Your task to perform on an android device: Turn off the flashlight Image 0: 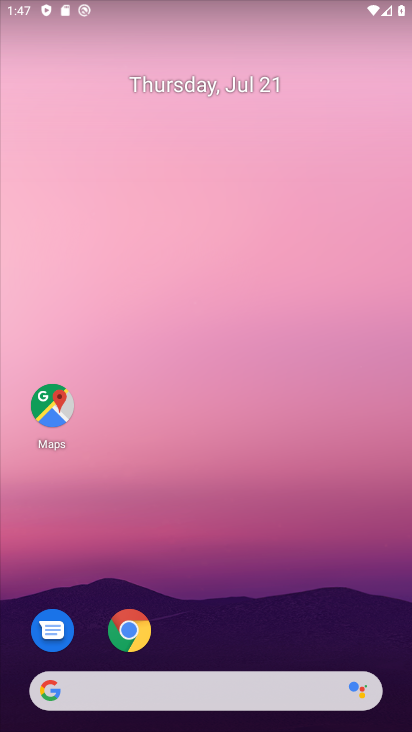
Step 0: press home button
Your task to perform on an android device: Turn off the flashlight Image 1: 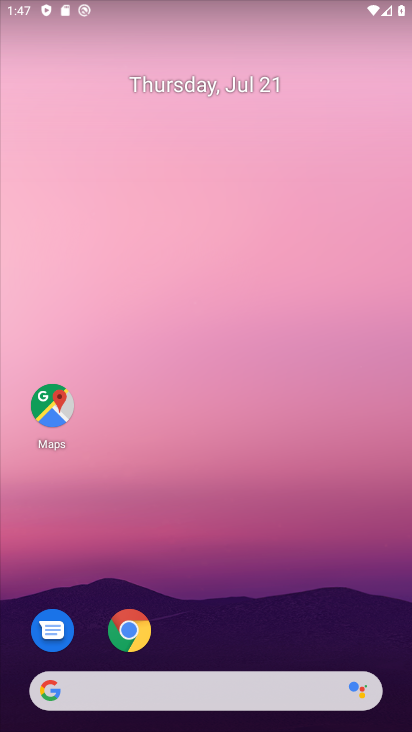
Step 1: drag from (210, 631) to (238, 60)
Your task to perform on an android device: Turn off the flashlight Image 2: 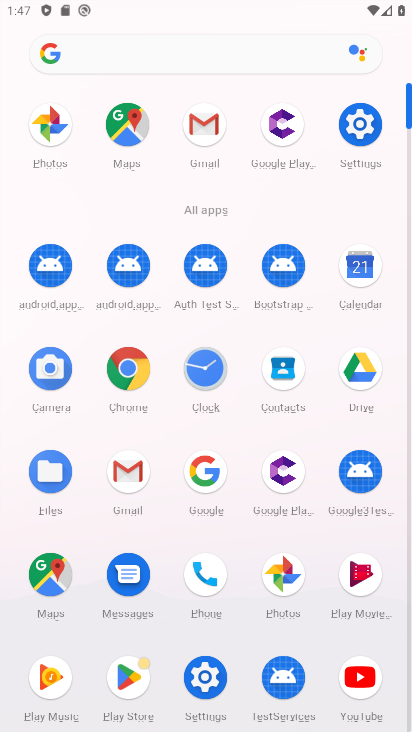
Step 2: click (360, 126)
Your task to perform on an android device: Turn off the flashlight Image 3: 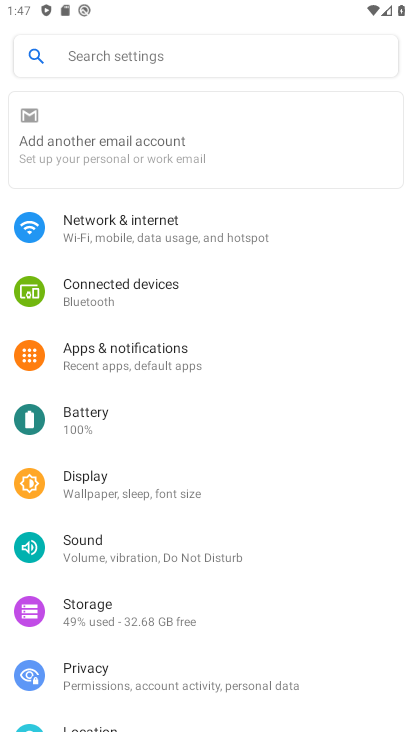
Step 3: click (155, 53)
Your task to perform on an android device: Turn off the flashlight Image 4: 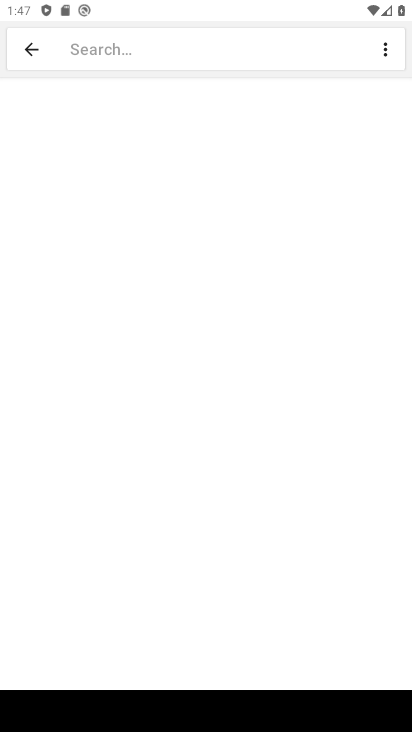
Step 4: type "flashlight"
Your task to perform on an android device: Turn off the flashlight Image 5: 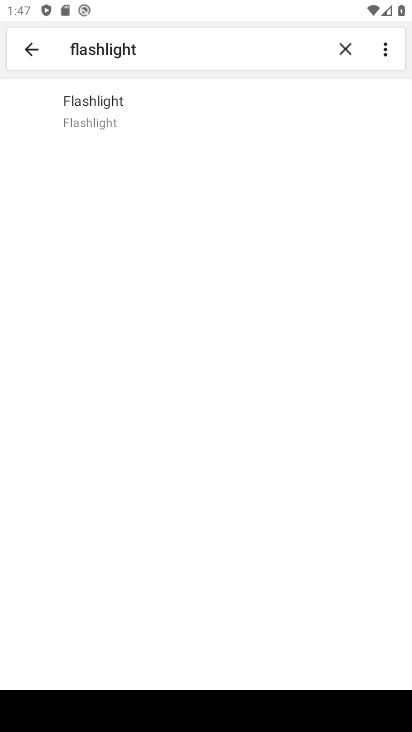
Step 5: click (116, 135)
Your task to perform on an android device: Turn off the flashlight Image 6: 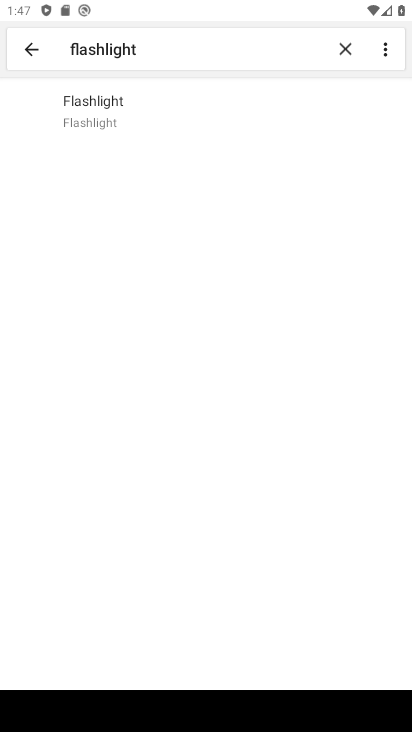
Step 6: click (117, 116)
Your task to perform on an android device: Turn off the flashlight Image 7: 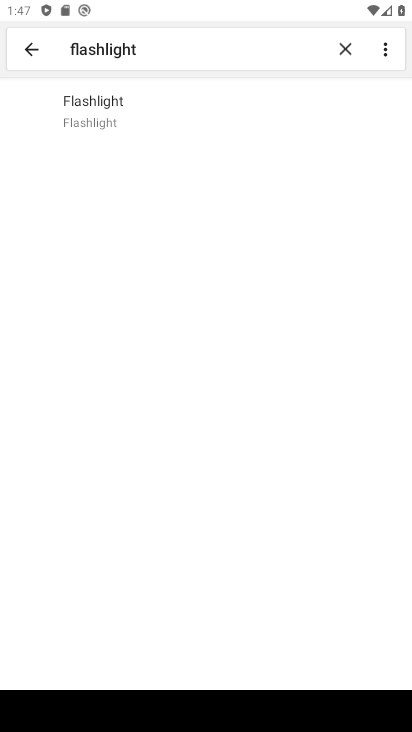
Step 7: task complete